Your task to perform on an android device: turn on the 12-hour format for clock Image 0: 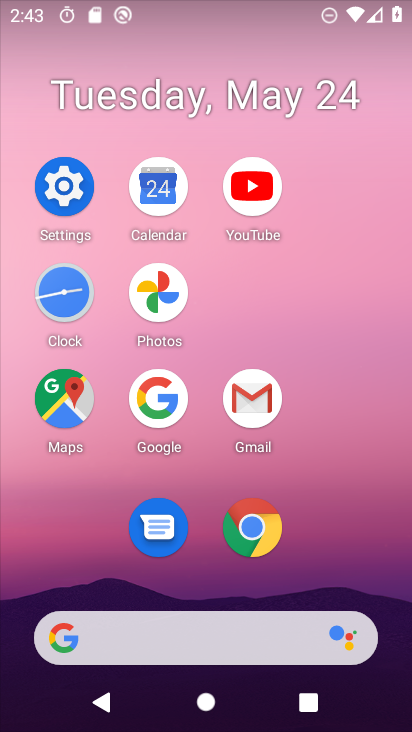
Step 0: click (78, 288)
Your task to perform on an android device: turn on the 12-hour format for clock Image 1: 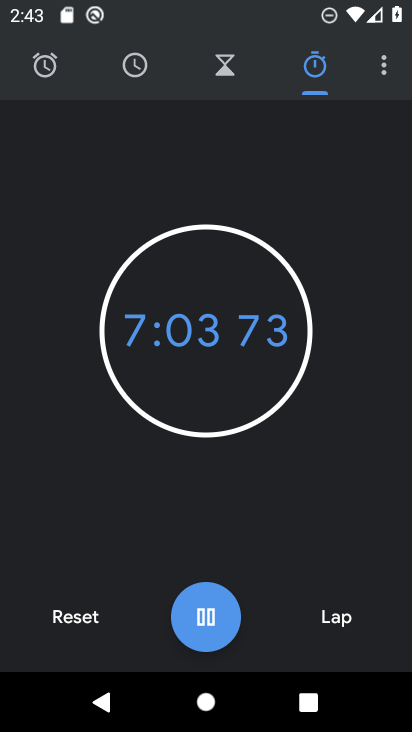
Step 1: click (379, 65)
Your task to perform on an android device: turn on the 12-hour format for clock Image 2: 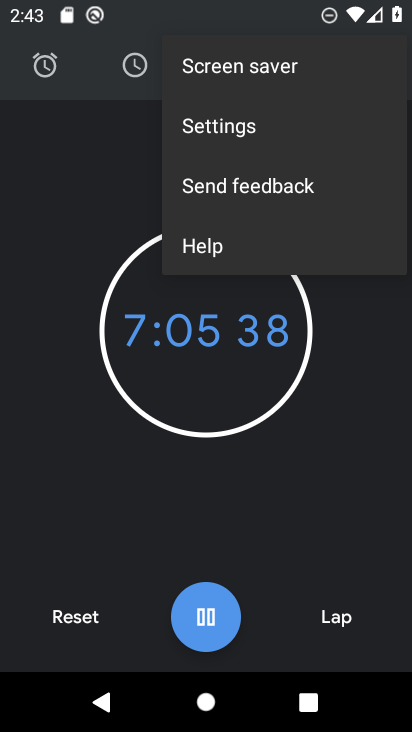
Step 2: click (210, 114)
Your task to perform on an android device: turn on the 12-hour format for clock Image 3: 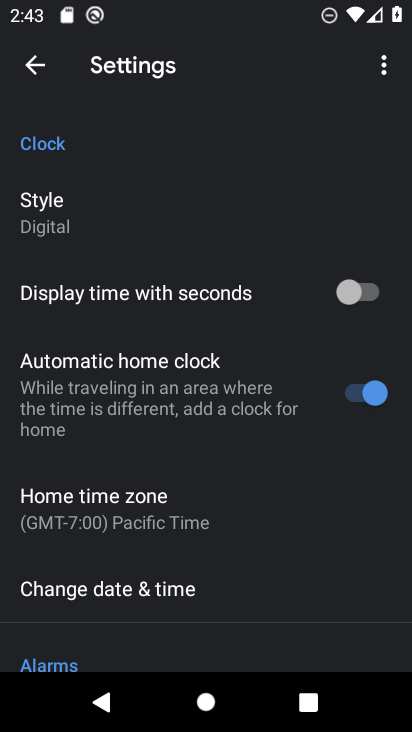
Step 3: click (133, 582)
Your task to perform on an android device: turn on the 12-hour format for clock Image 4: 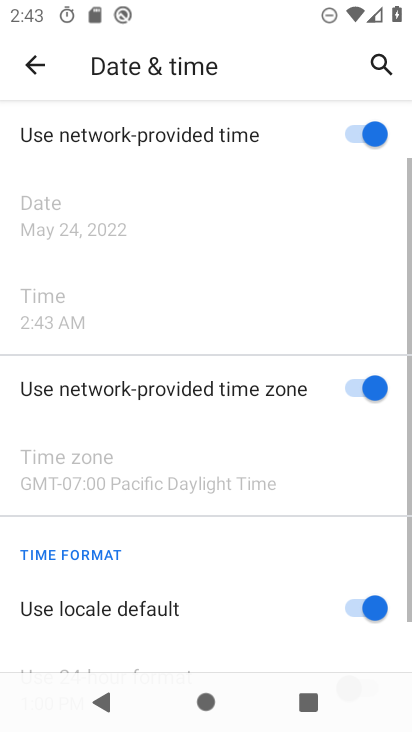
Step 4: task complete